Your task to perform on an android device: open device folders in google photos Image 0: 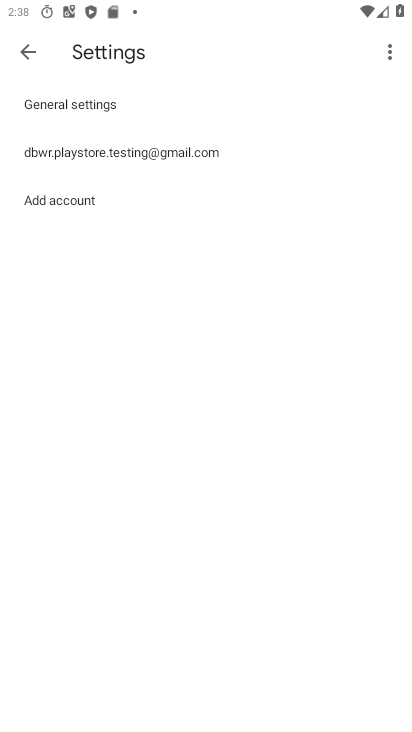
Step 0: press home button
Your task to perform on an android device: open device folders in google photos Image 1: 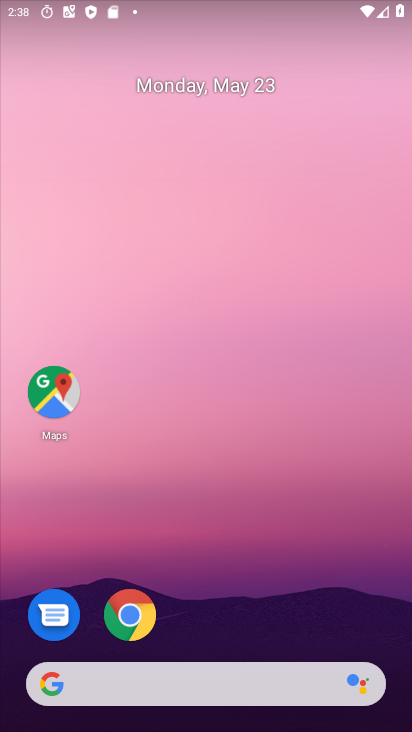
Step 1: drag from (259, 647) to (280, 13)
Your task to perform on an android device: open device folders in google photos Image 2: 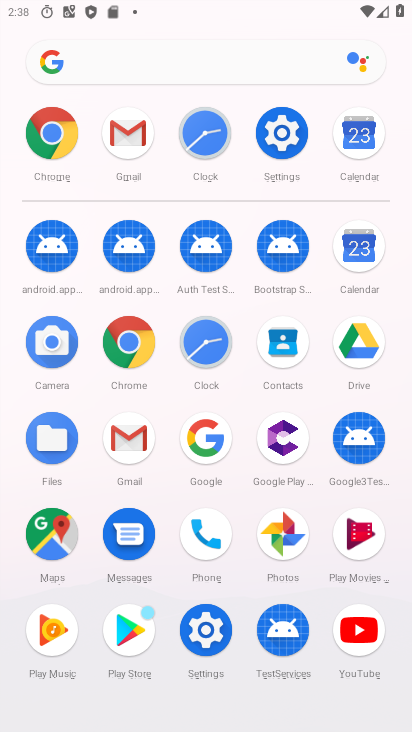
Step 2: click (276, 534)
Your task to perform on an android device: open device folders in google photos Image 3: 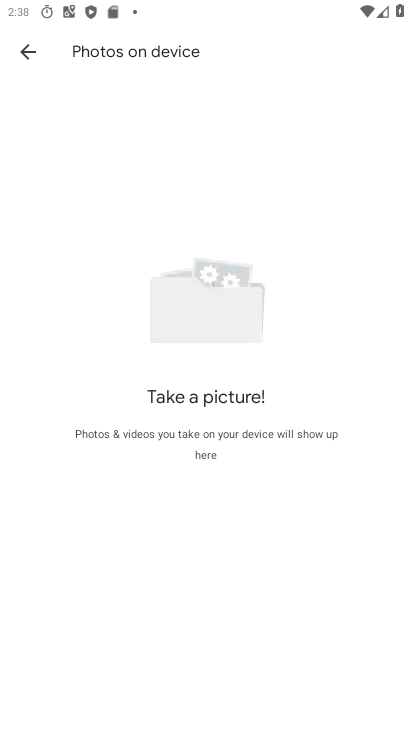
Step 3: click (27, 55)
Your task to perform on an android device: open device folders in google photos Image 4: 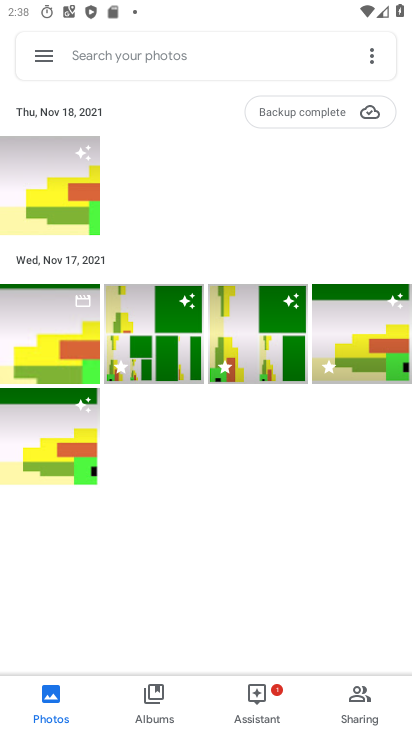
Step 4: click (47, 56)
Your task to perform on an android device: open device folders in google photos Image 5: 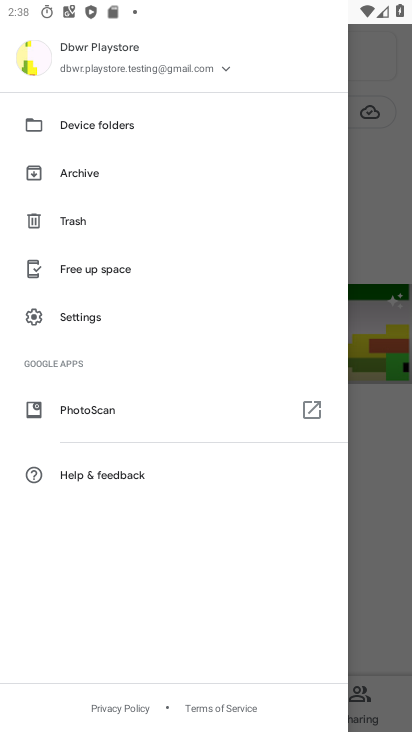
Step 5: click (47, 125)
Your task to perform on an android device: open device folders in google photos Image 6: 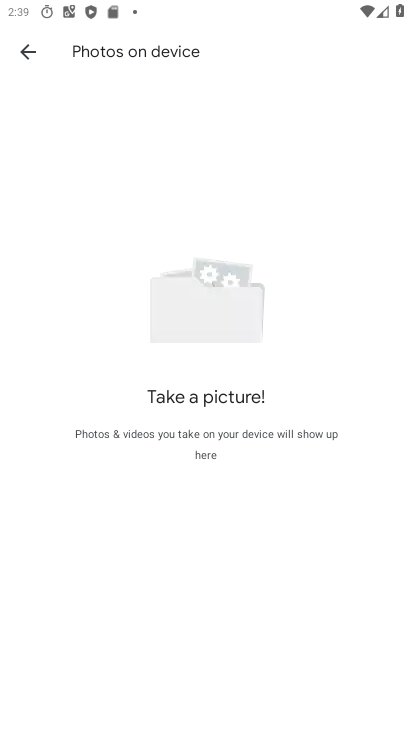
Step 6: task complete